Your task to perform on an android device: Open Youtube and go to "Your channel" Image 0: 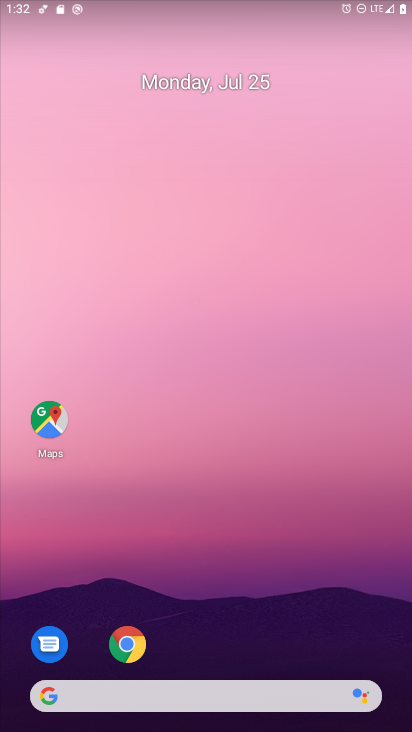
Step 0: drag from (217, 645) to (217, 27)
Your task to perform on an android device: Open Youtube and go to "Your channel" Image 1: 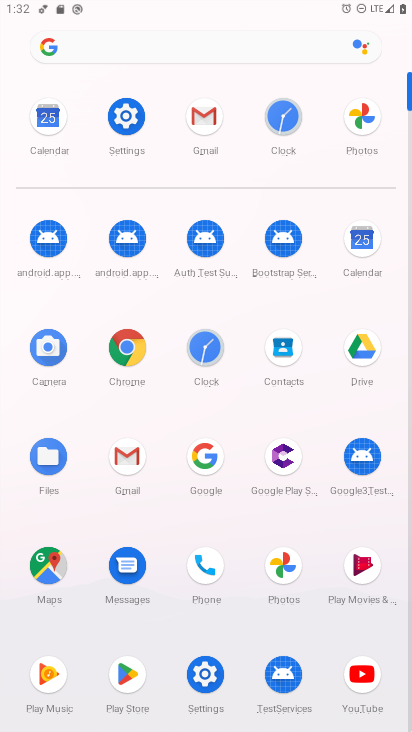
Step 1: click (363, 675)
Your task to perform on an android device: Open Youtube and go to "Your channel" Image 2: 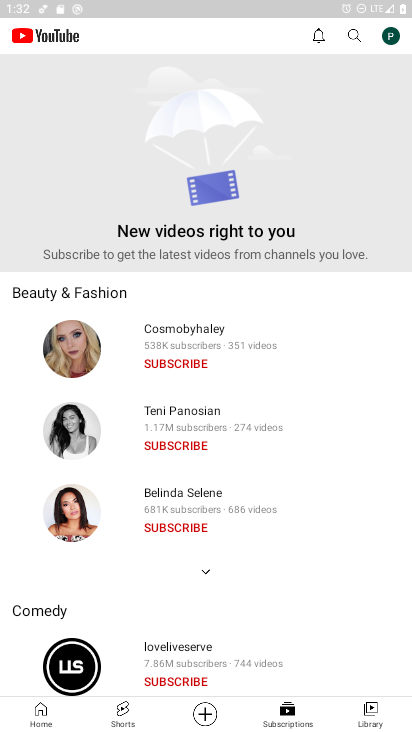
Step 2: click (395, 25)
Your task to perform on an android device: Open Youtube and go to "Your channel" Image 3: 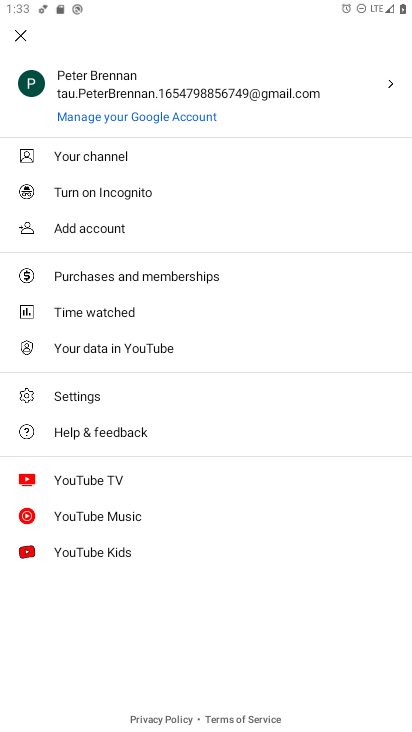
Step 3: click (110, 156)
Your task to perform on an android device: Open Youtube and go to "Your channel" Image 4: 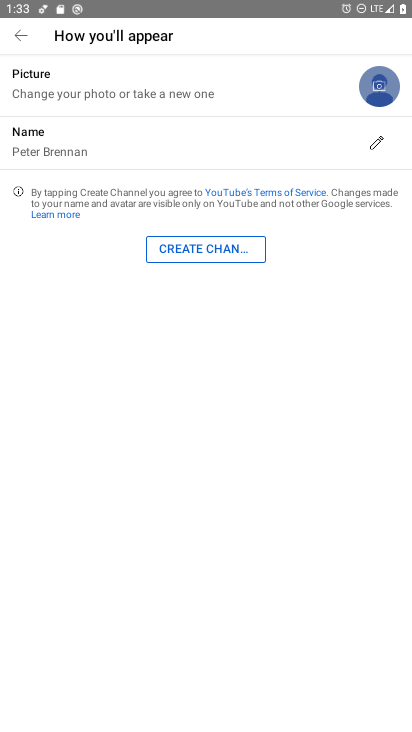
Step 4: task complete